Your task to perform on an android device: change notification settings in the gmail app Image 0: 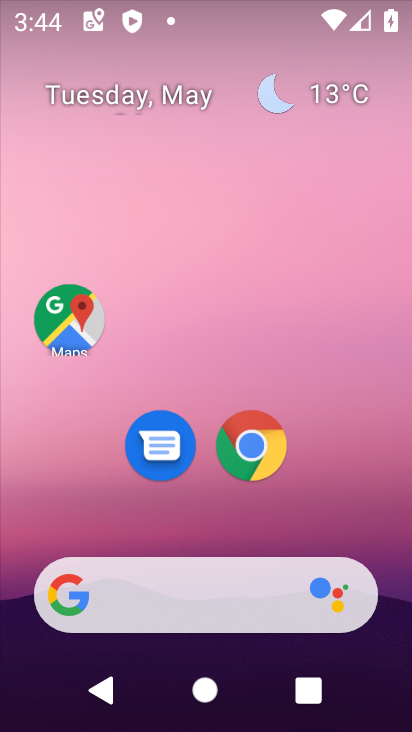
Step 0: press home button
Your task to perform on an android device: change notification settings in the gmail app Image 1: 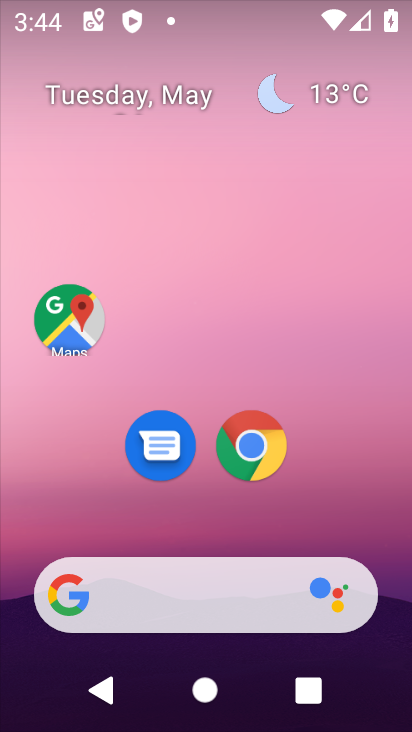
Step 1: drag from (207, 530) to (219, 11)
Your task to perform on an android device: change notification settings in the gmail app Image 2: 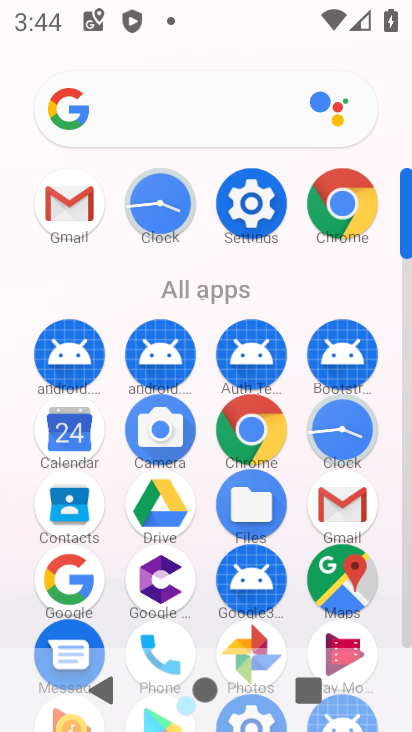
Step 2: click (66, 198)
Your task to perform on an android device: change notification settings in the gmail app Image 3: 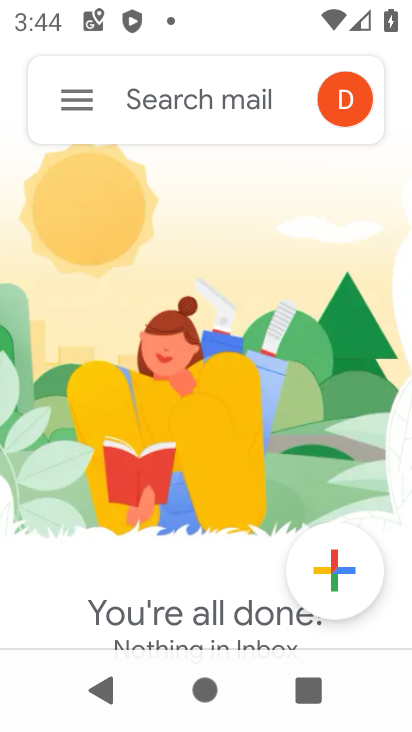
Step 3: click (76, 96)
Your task to perform on an android device: change notification settings in the gmail app Image 4: 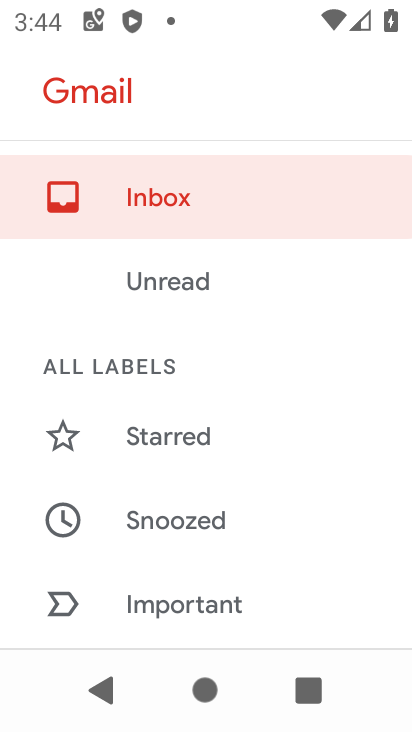
Step 4: drag from (252, 616) to (251, 85)
Your task to perform on an android device: change notification settings in the gmail app Image 5: 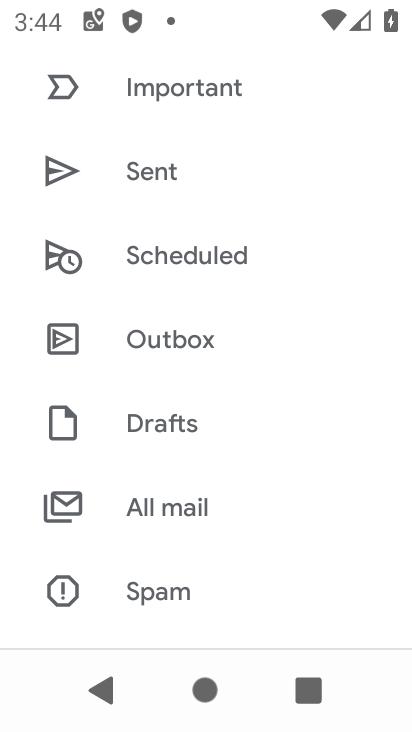
Step 5: drag from (235, 598) to (235, 130)
Your task to perform on an android device: change notification settings in the gmail app Image 6: 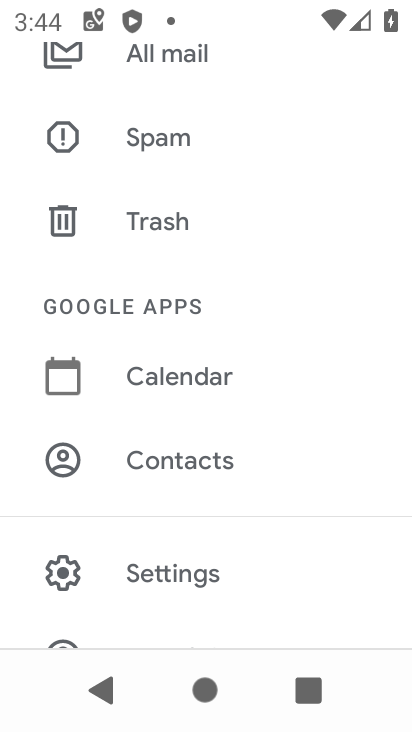
Step 6: click (228, 568)
Your task to perform on an android device: change notification settings in the gmail app Image 7: 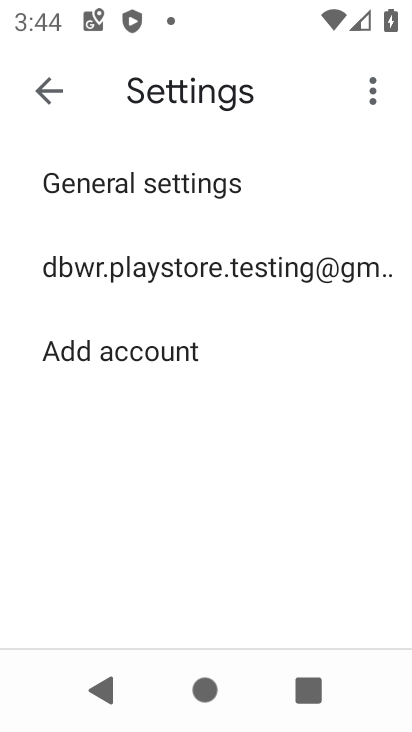
Step 7: click (239, 179)
Your task to perform on an android device: change notification settings in the gmail app Image 8: 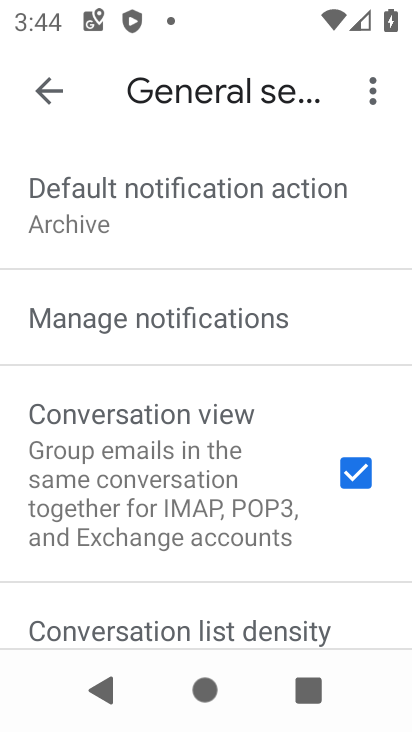
Step 8: click (185, 325)
Your task to perform on an android device: change notification settings in the gmail app Image 9: 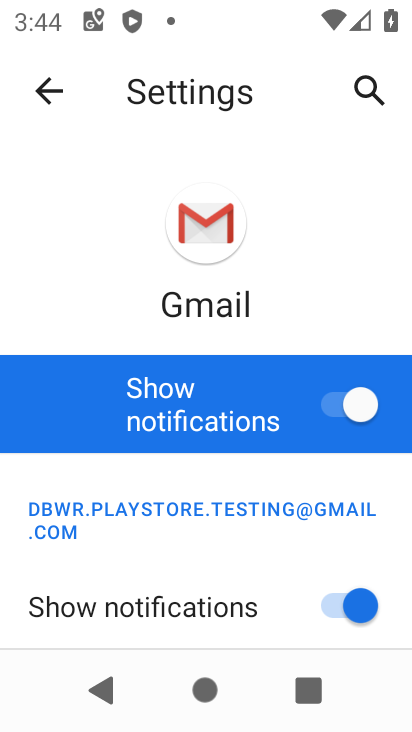
Step 9: click (342, 401)
Your task to perform on an android device: change notification settings in the gmail app Image 10: 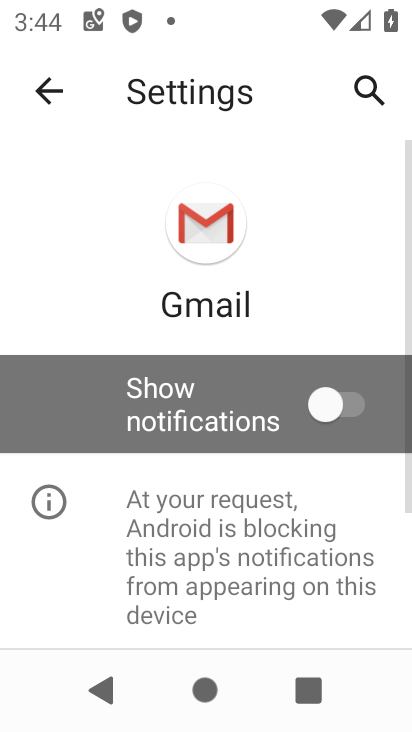
Step 10: task complete